Your task to perform on an android device: Is it going to rain tomorrow? Image 0: 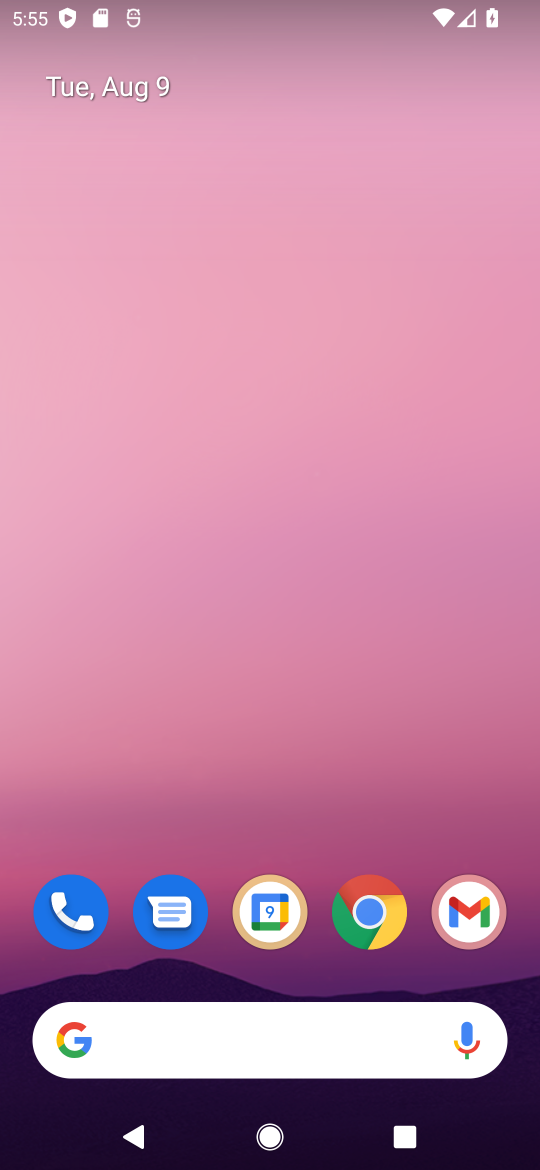
Step 0: click (75, 1046)
Your task to perform on an android device: Is it going to rain tomorrow? Image 1: 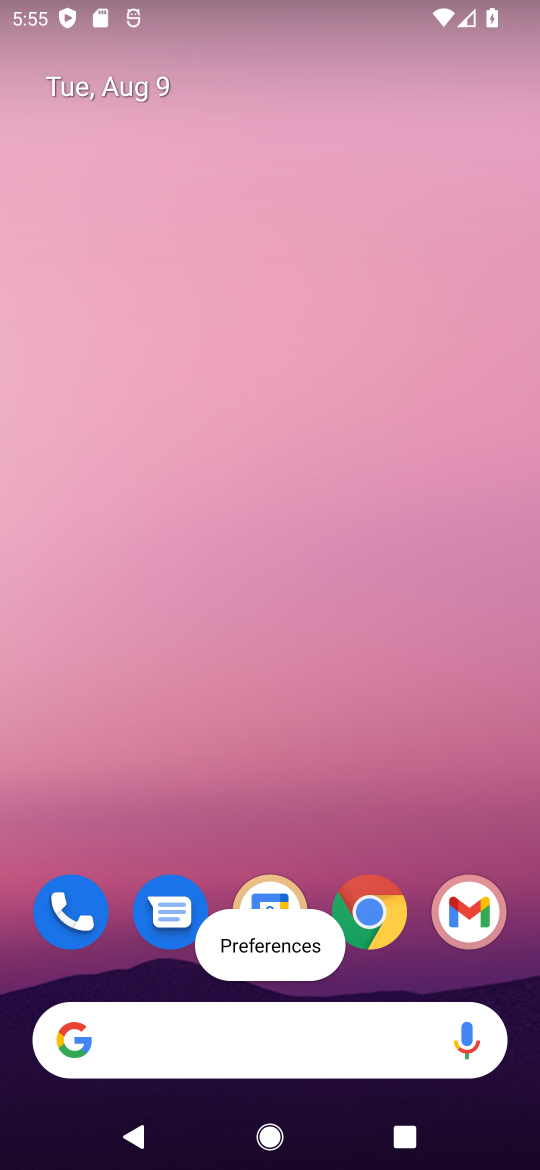
Step 1: click (71, 1045)
Your task to perform on an android device: Is it going to rain tomorrow? Image 2: 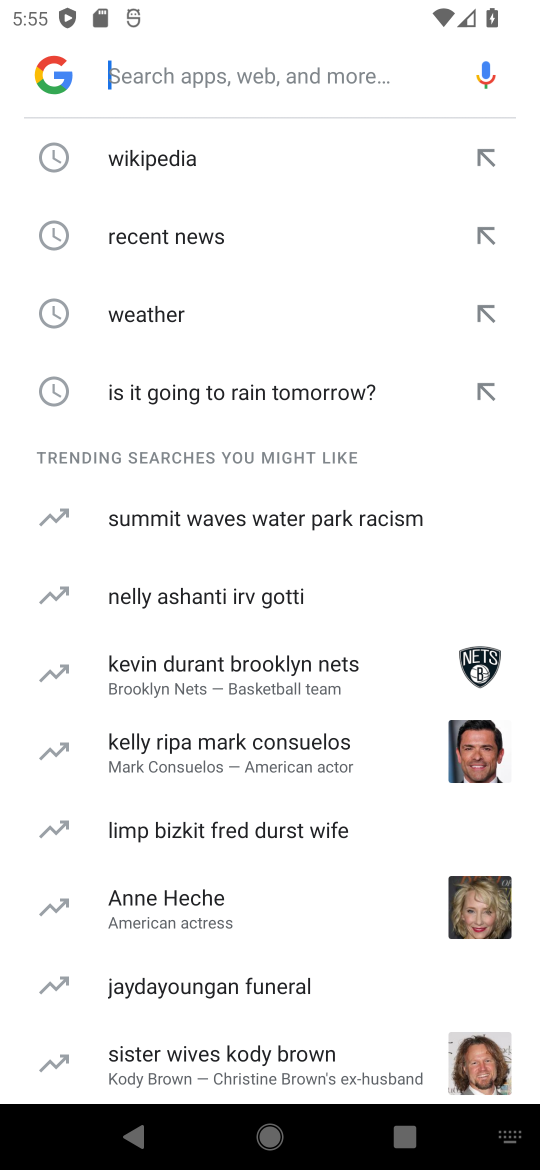
Step 2: click (256, 405)
Your task to perform on an android device: Is it going to rain tomorrow? Image 3: 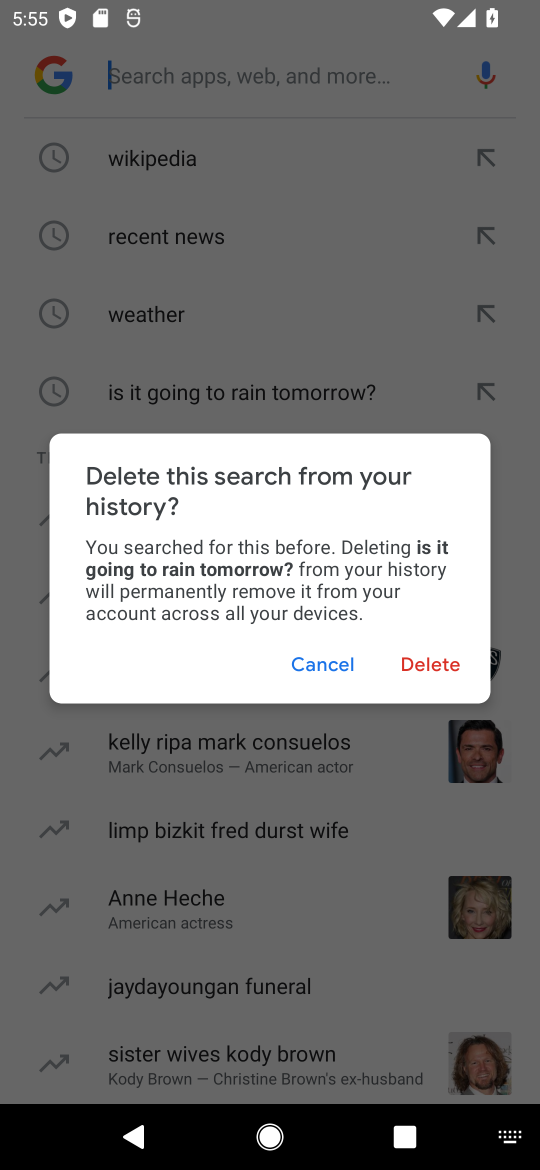
Step 3: click (323, 672)
Your task to perform on an android device: Is it going to rain tomorrow? Image 4: 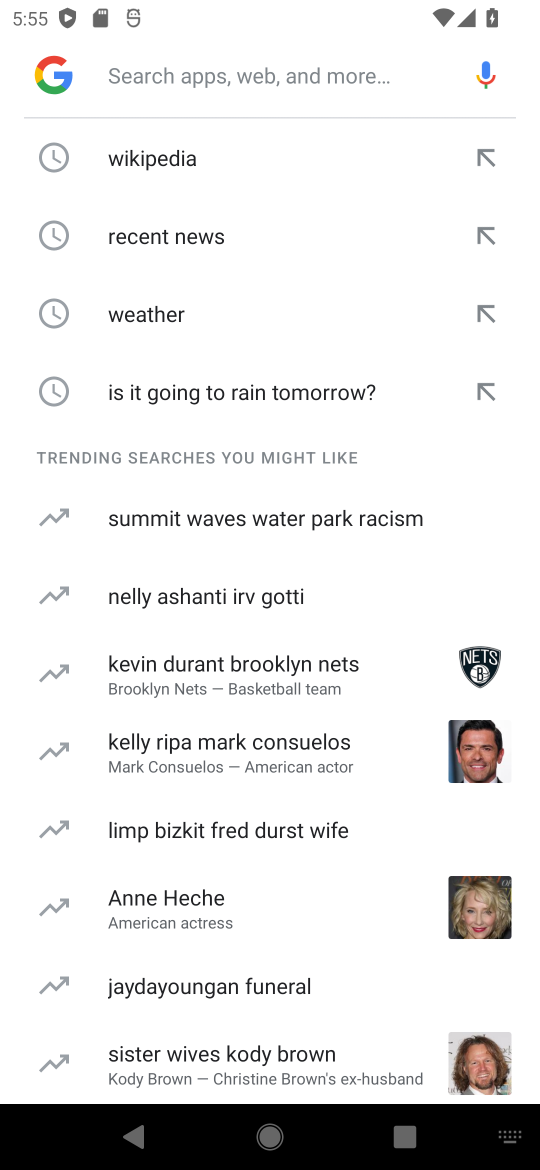
Step 4: click (290, 59)
Your task to perform on an android device: Is it going to rain tomorrow? Image 5: 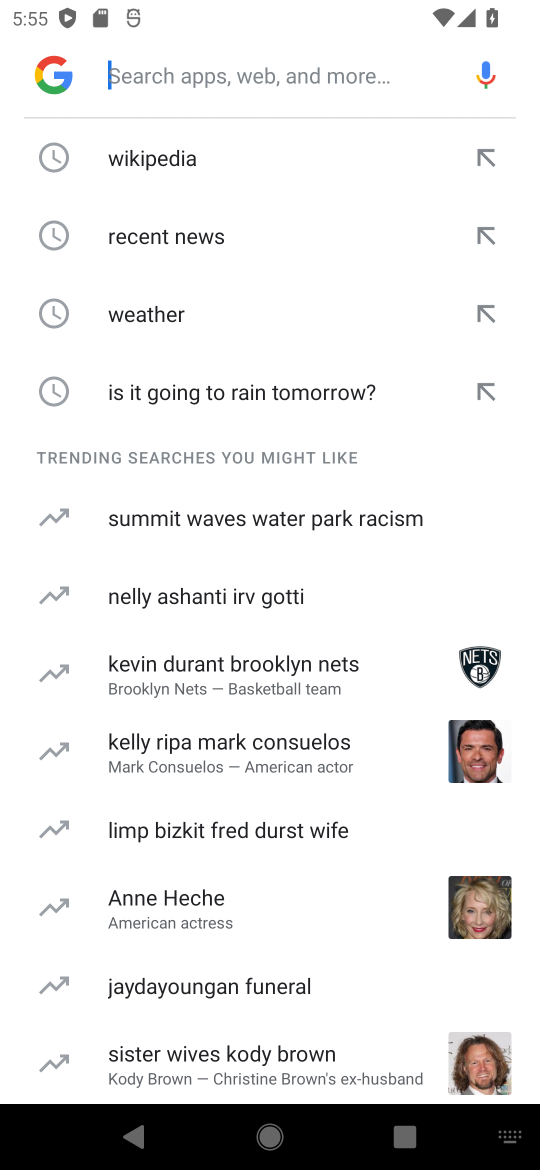
Step 5: press enter
Your task to perform on an android device: Is it going to rain tomorrow? Image 6: 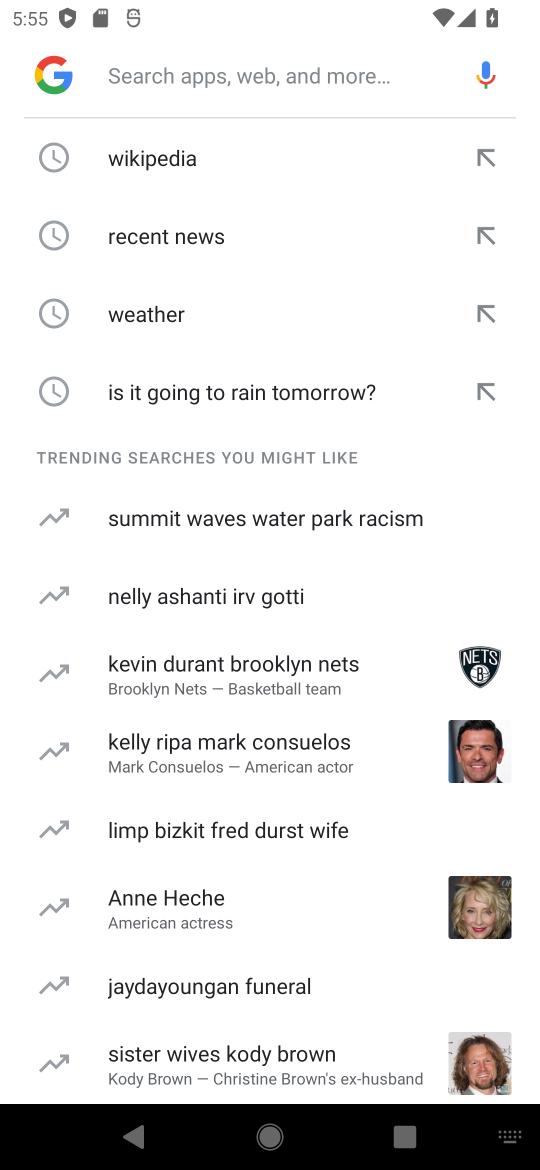
Step 6: type "rain tomorrow?"
Your task to perform on an android device: Is it going to rain tomorrow? Image 7: 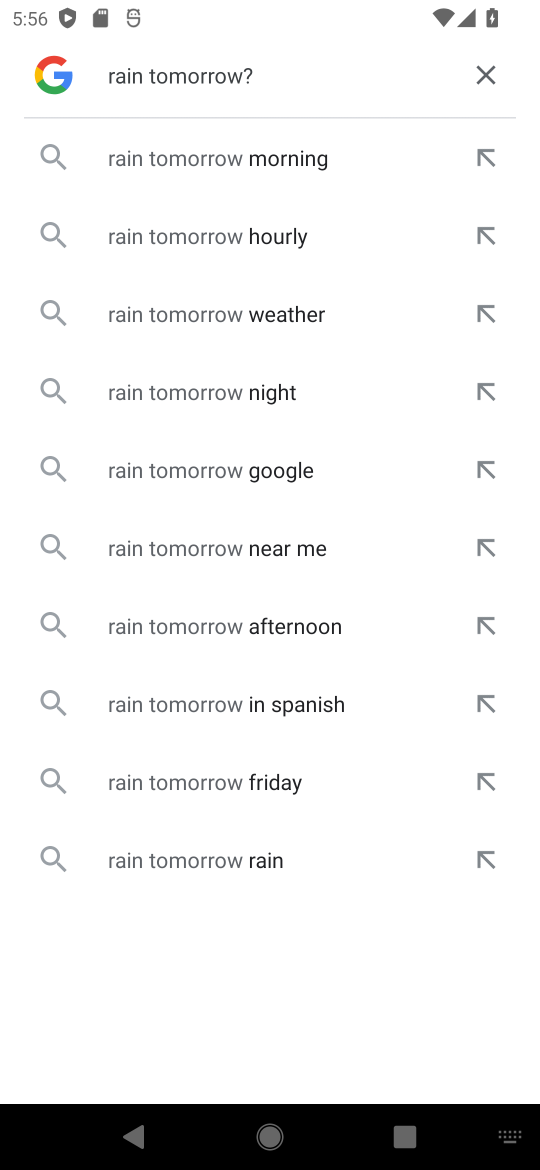
Step 7: press enter
Your task to perform on an android device: Is it going to rain tomorrow? Image 8: 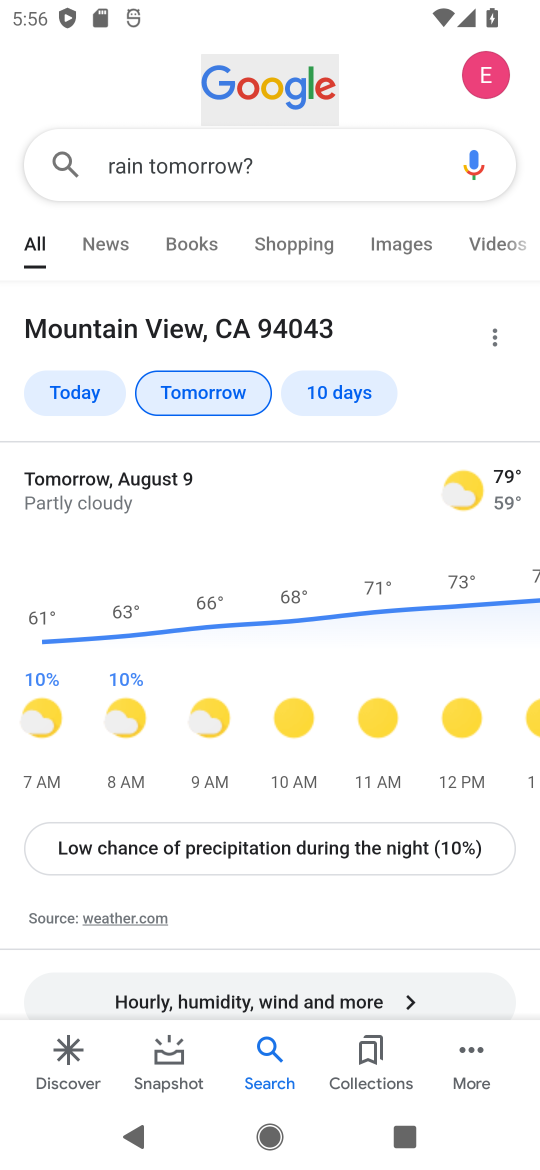
Step 8: task complete